Your task to perform on an android device: stop showing notifications on the lock screen Image 0: 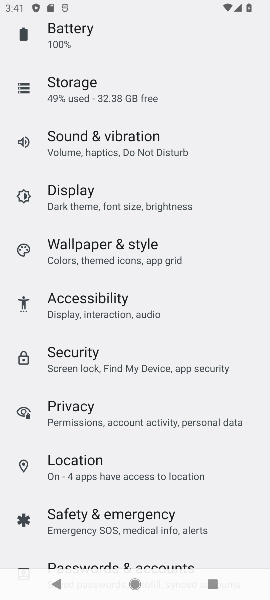
Step 0: drag from (148, 138) to (130, 538)
Your task to perform on an android device: stop showing notifications on the lock screen Image 1: 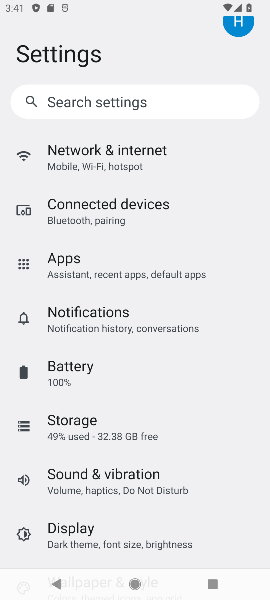
Step 1: click (95, 317)
Your task to perform on an android device: stop showing notifications on the lock screen Image 2: 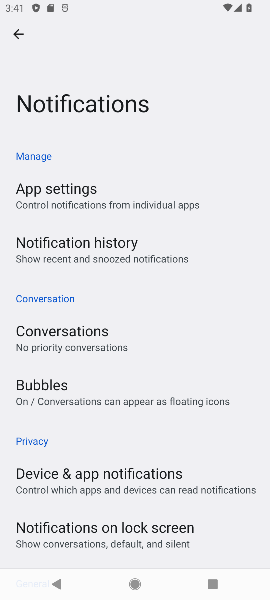
Step 2: click (123, 532)
Your task to perform on an android device: stop showing notifications on the lock screen Image 3: 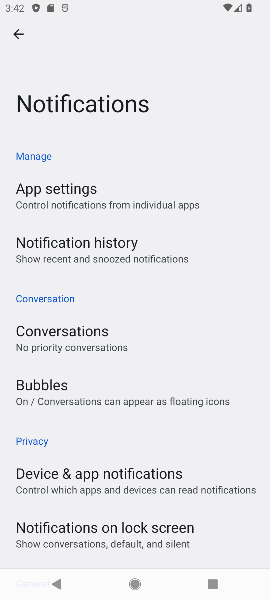
Step 3: drag from (137, 454) to (155, 375)
Your task to perform on an android device: stop showing notifications on the lock screen Image 4: 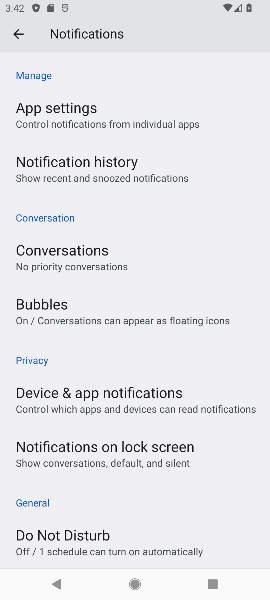
Step 4: click (127, 485)
Your task to perform on an android device: stop showing notifications on the lock screen Image 5: 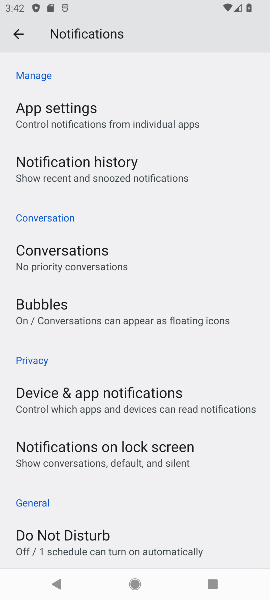
Step 5: click (127, 454)
Your task to perform on an android device: stop showing notifications on the lock screen Image 6: 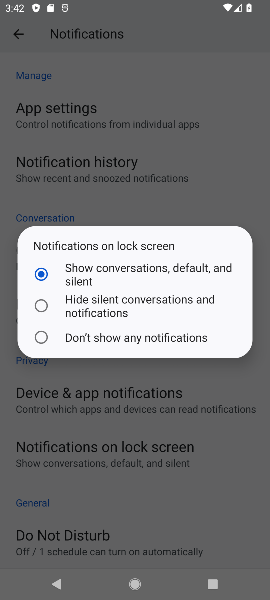
Step 6: click (120, 341)
Your task to perform on an android device: stop showing notifications on the lock screen Image 7: 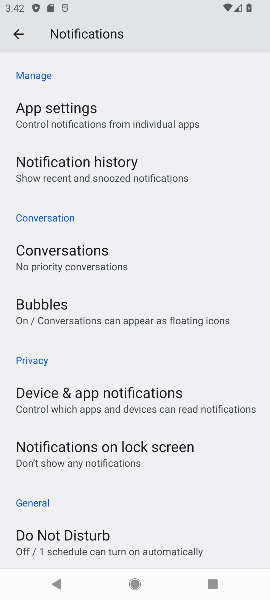
Step 7: task complete